Your task to perform on an android device: Open my contact list Image 0: 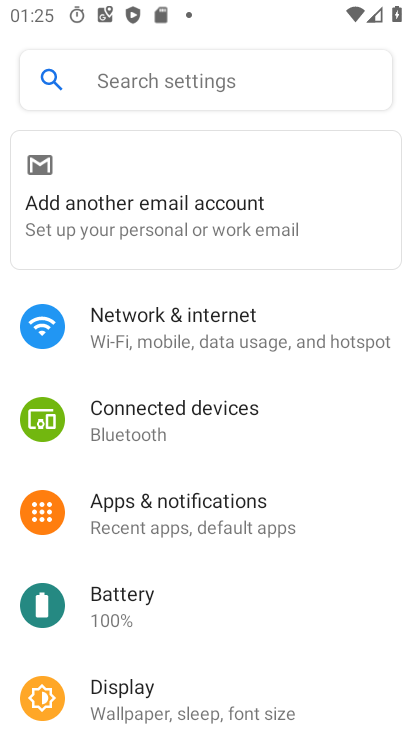
Step 0: press home button
Your task to perform on an android device: Open my contact list Image 1: 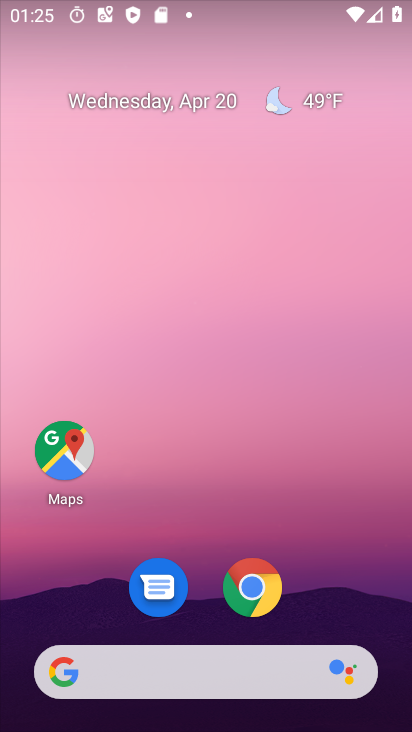
Step 1: drag from (402, 556) to (408, 520)
Your task to perform on an android device: Open my contact list Image 2: 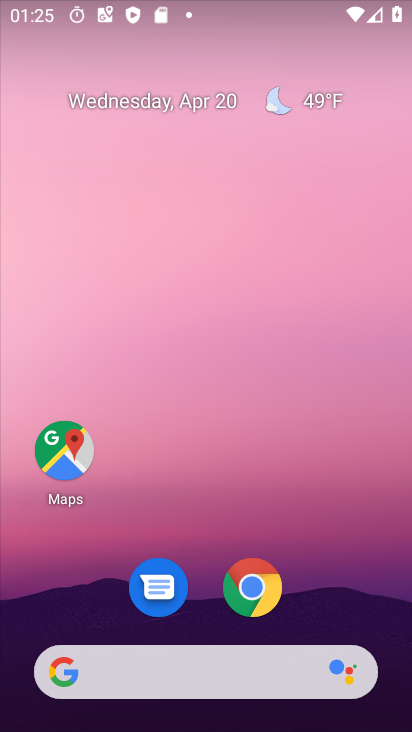
Step 2: drag from (381, 541) to (387, 25)
Your task to perform on an android device: Open my contact list Image 3: 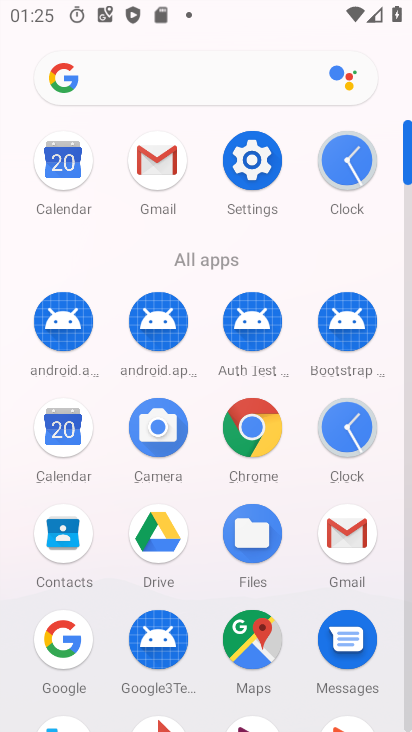
Step 3: click (51, 535)
Your task to perform on an android device: Open my contact list Image 4: 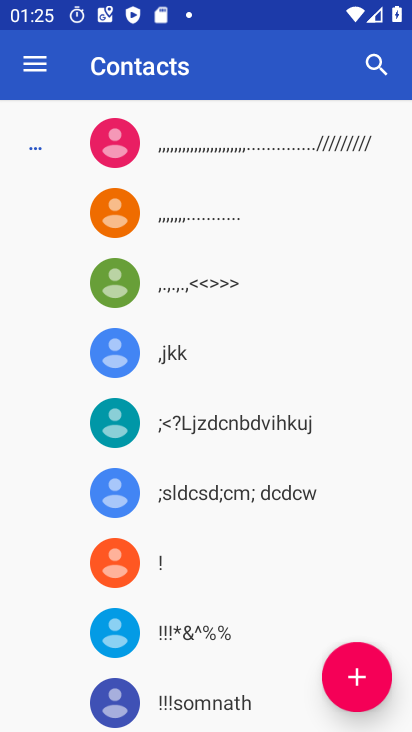
Step 4: task complete